Your task to perform on an android device: find photos in the google photos app Image 0: 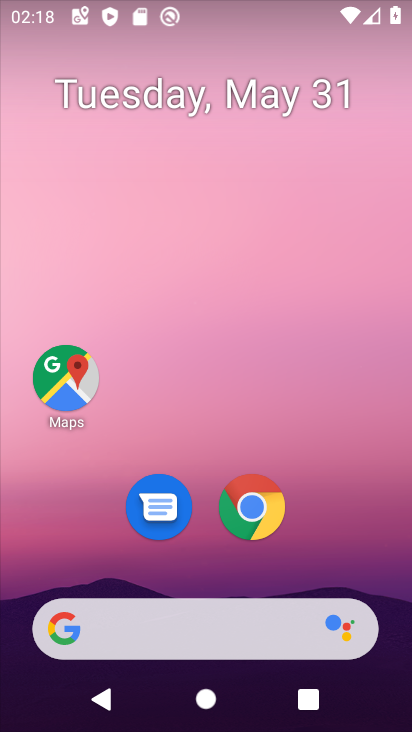
Step 0: drag from (163, 568) to (156, 106)
Your task to perform on an android device: find photos in the google photos app Image 1: 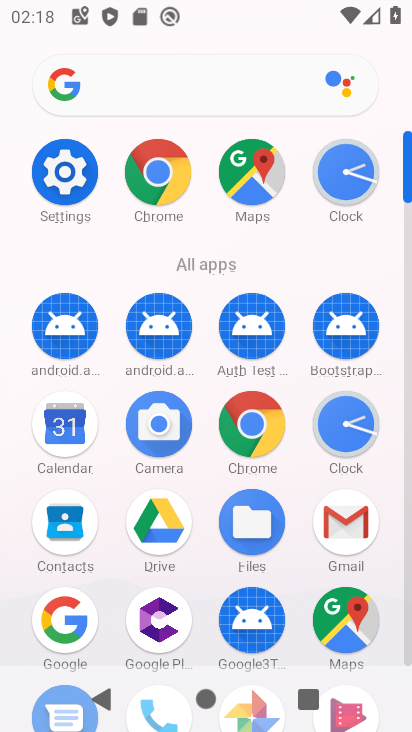
Step 1: drag from (197, 627) to (201, 197)
Your task to perform on an android device: find photos in the google photos app Image 2: 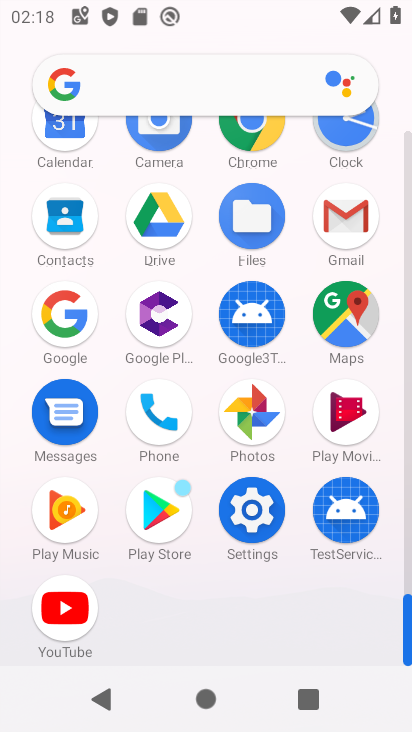
Step 2: click (231, 414)
Your task to perform on an android device: find photos in the google photos app Image 3: 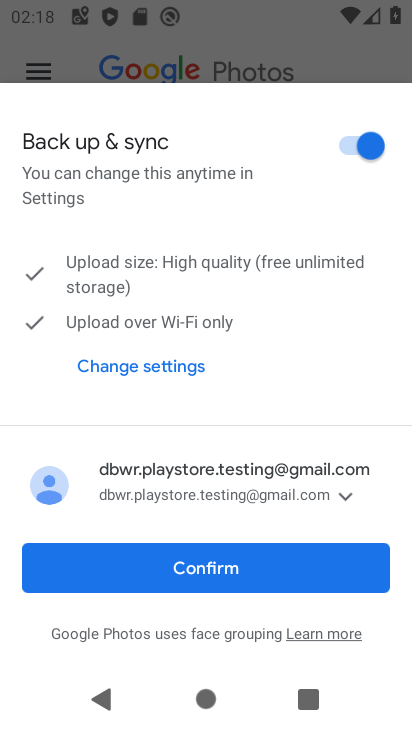
Step 3: click (211, 554)
Your task to perform on an android device: find photos in the google photos app Image 4: 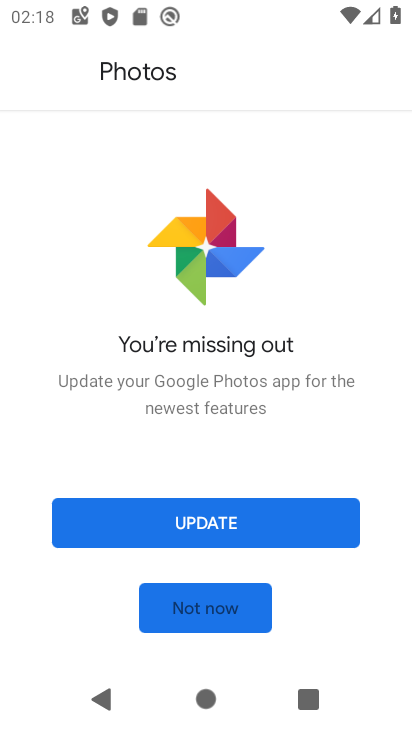
Step 4: click (196, 596)
Your task to perform on an android device: find photos in the google photos app Image 5: 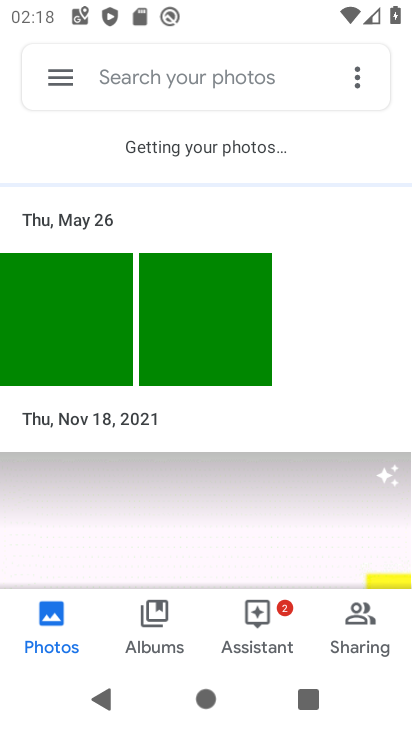
Step 5: task complete